Your task to perform on an android device: turn on sleep mode Image 0: 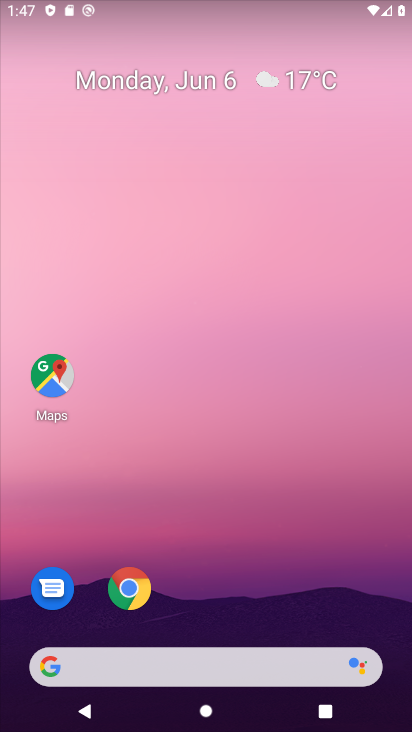
Step 0: drag from (225, 653) to (228, 40)
Your task to perform on an android device: turn on sleep mode Image 1: 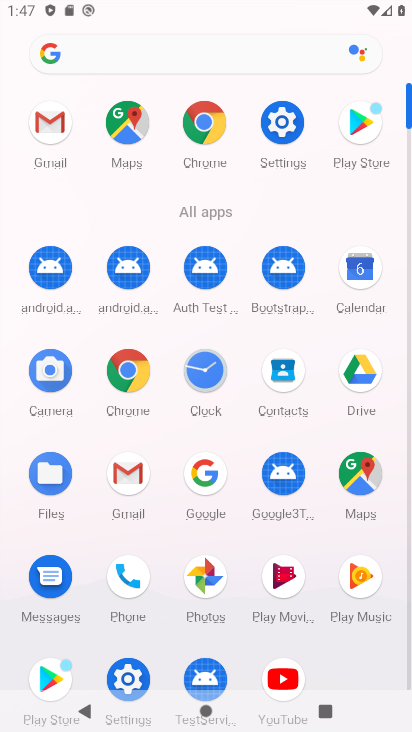
Step 1: click (282, 113)
Your task to perform on an android device: turn on sleep mode Image 2: 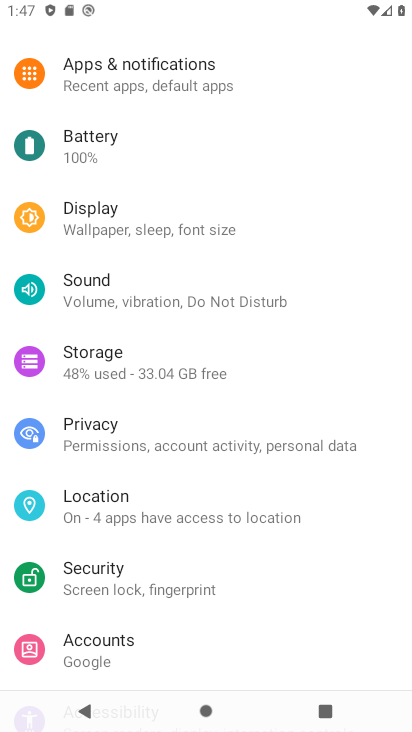
Step 2: click (137, 236)
Your task to perform on an android device: turn on sleep mode Image 3: 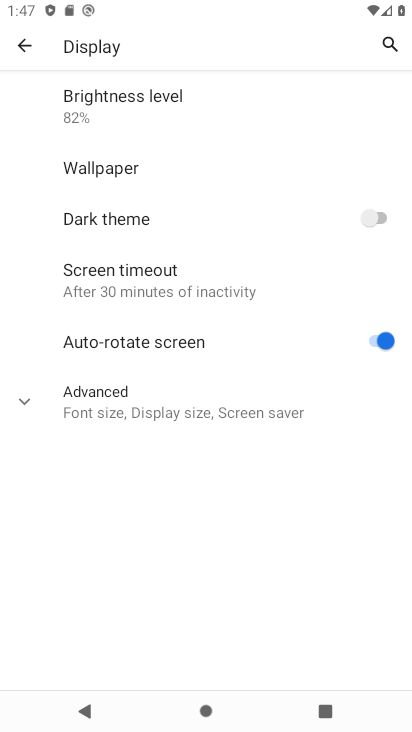
Step 3: click (168, 395)
Your task to perform on an android device: turn on sleep mode Image 4: 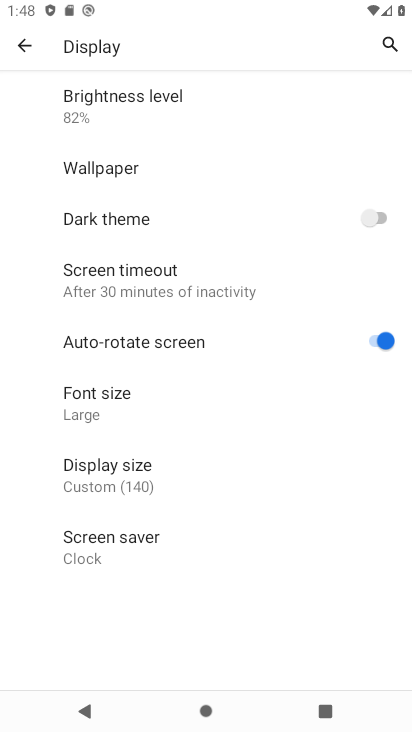
Step 4: task complete